Your task to perform on an android device: change the clock display to analog Image 0: 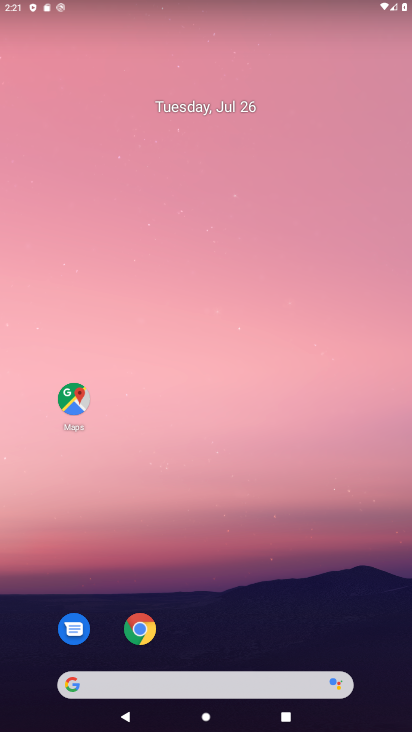
Step 0: drag from (259, 623) to (259, 180)
Your task to perform on an android device: change the clock display to analog Image 1: 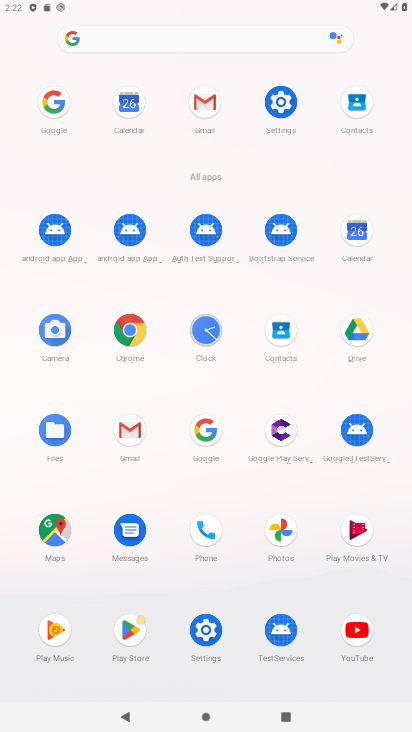
Step 1: click (199, 324)
Your task to perform on an android device: change the clock display to analog Image 2: 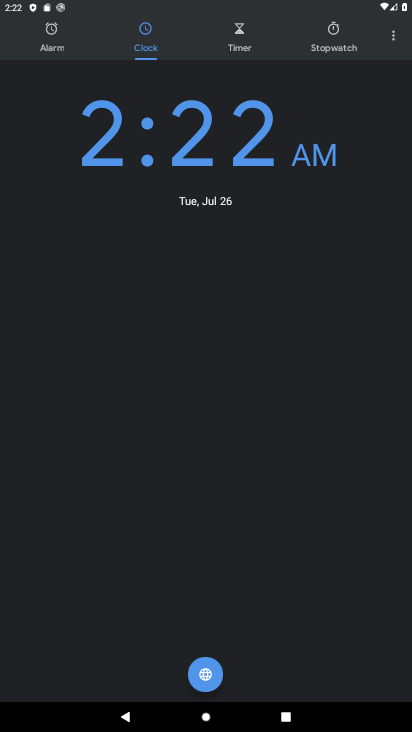
Step 2: click (402, 45)
Your task to perform on an android device: change the clock display to analog Image 3: 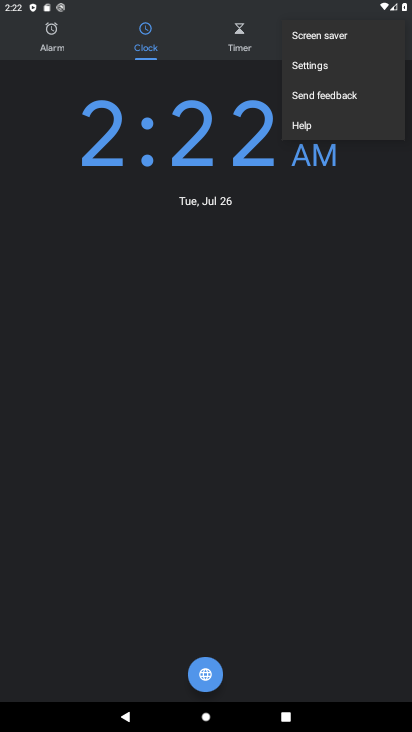
Step 3: click (304, 68)
Your task to perform on an android device: change the clock display to analog Image 4: 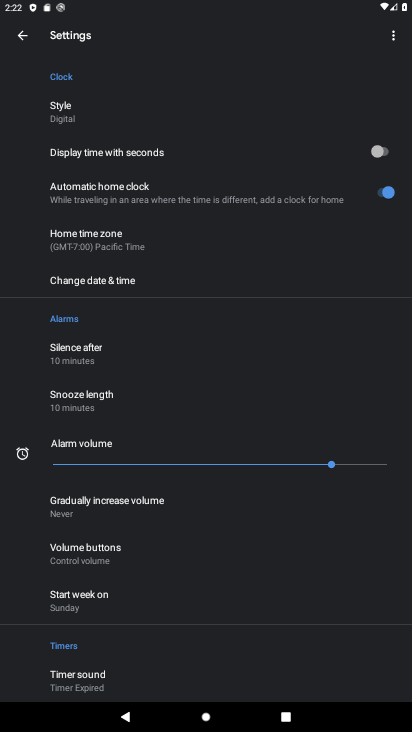
Step 4: click (70, 118)
Your task to perform on an android device: change the clock display to analog Image 5: 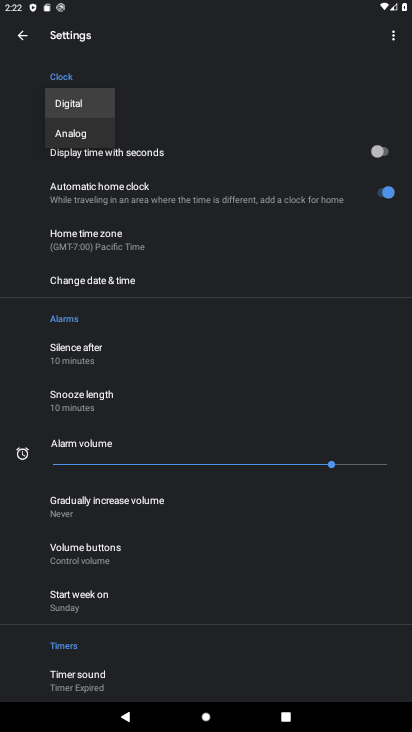
Step 5: click (71, 135)
Your task to perform on an android device: change the clock display to analog Image 6: 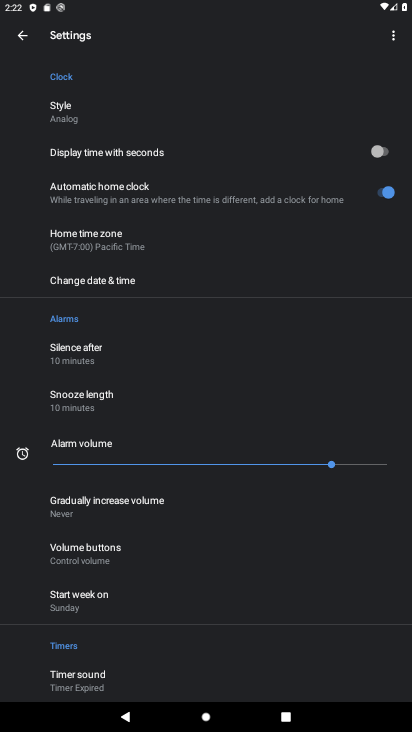
Step 6: task complete